Your task to perform on an android device: Search for the new Apple Watch on Best Buy Image 0: 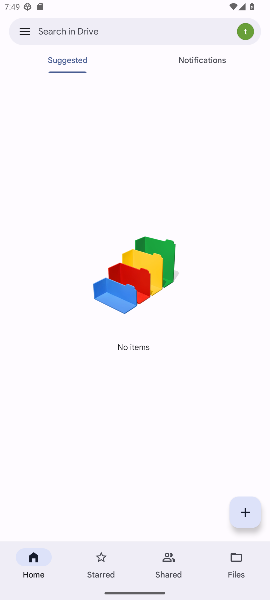
Step 0: press home button
Your task to perform on an android device: Search for the new Apple Watch on Best Buy Image 1: 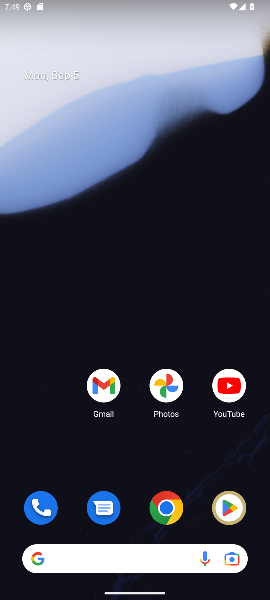
Step 1: click (167, 508)
Your task to perform on an android device: Search for the new Apple Watch on Best Buy Image 2: 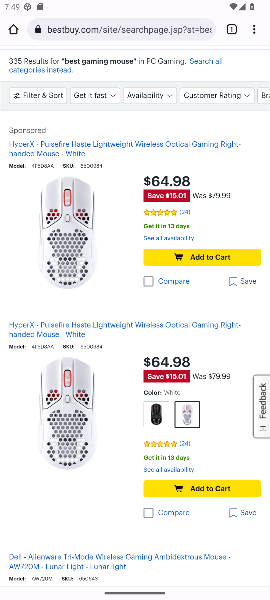
Step 2: click (124, 34)
Your task to perform on an android device: Search for the new Apple Watch on Best Buy Image 3: 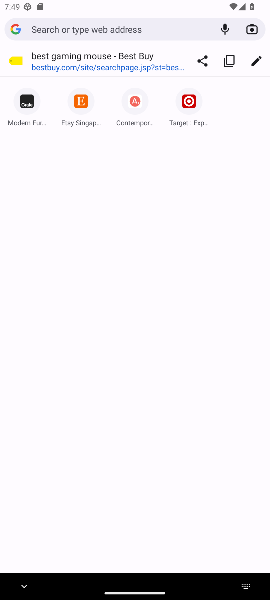
Step 3: type "Best Buy"
Your task to perform on an android device: Search for the new Apple Watch on Best Buy Image 4: 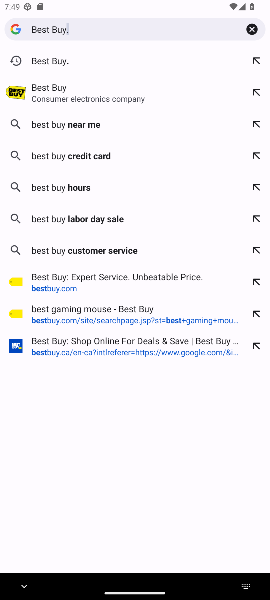
Step 4: click (50, 96)
Your task to perform on an android device: Search for the new Apple Watch on Best Buy Image 5: 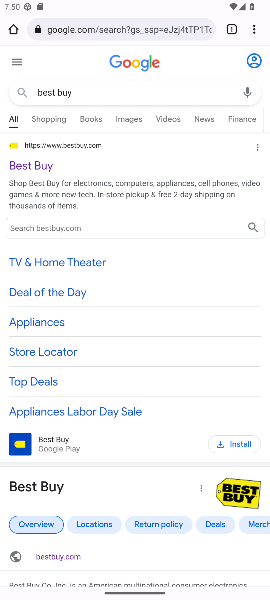
Step 5: click (22, 174)
Your task to perform on an android device: Search for the new Apple Watch on Best Buy Image 6: 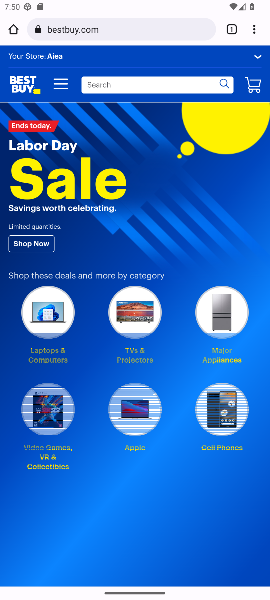
Step 6: click (117, 83)
Your task to perform on an android device: Search for the new Apple Watch on Best Buy Image 7: 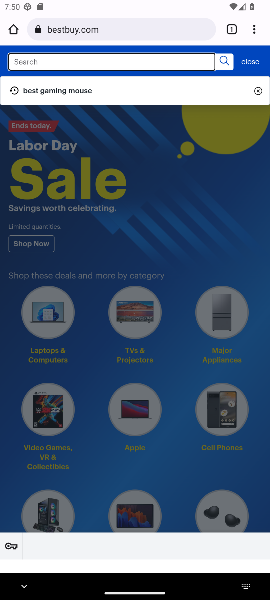
Step 7: type "new Apple Watch "
Your task to perform on an android device: Search for the new Apple Watch on Best Buy Image 8: 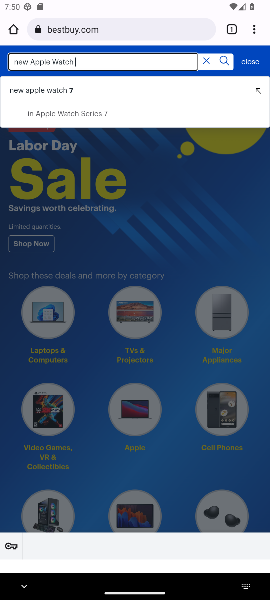
Step 8: click (228, 66)
Your task to perform on an android device: Search for the new Apple Watch on Best Buy Image 9: 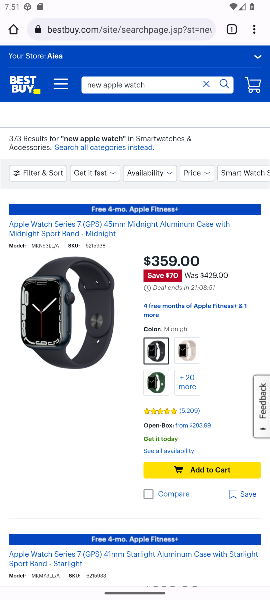
Step 9: task complete